Your task to perform on an android device: Play the last video I watched on Youtube Image 0: 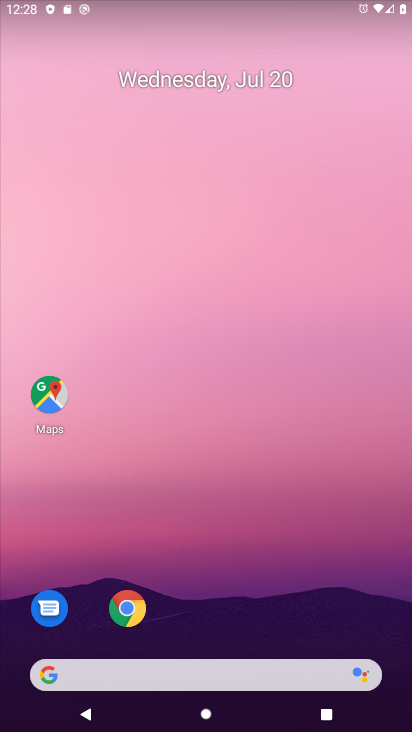
Step 0: drag from (194, 675) to (224, 48)
Your task to perform on an android device: Play the last video I watched on Youtube Image 1: 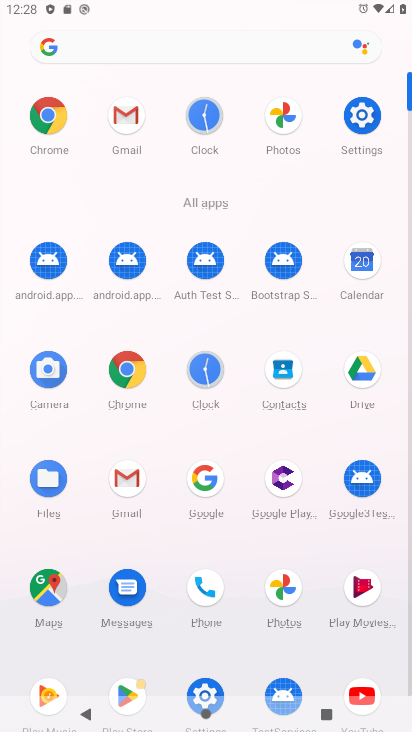
Step 1: drag from (239, 565) to (236, 337)
Your task to perform on an android device: Play the last video I watched on Youtube Image 2: 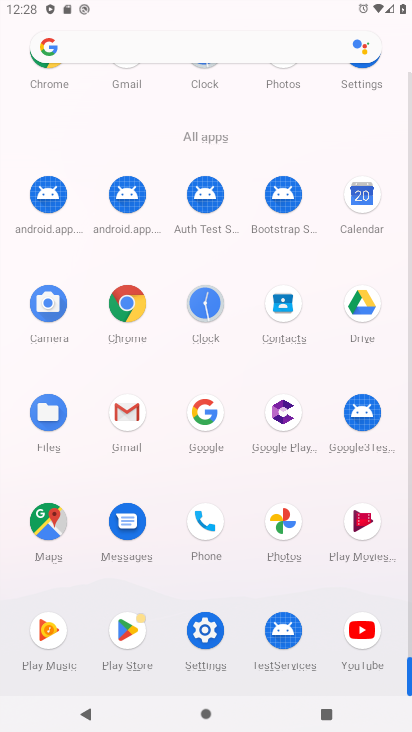
Step 2: click (362, 628)
Your task to perform on an android device: Play the last video I watched on Youtube Image 3: 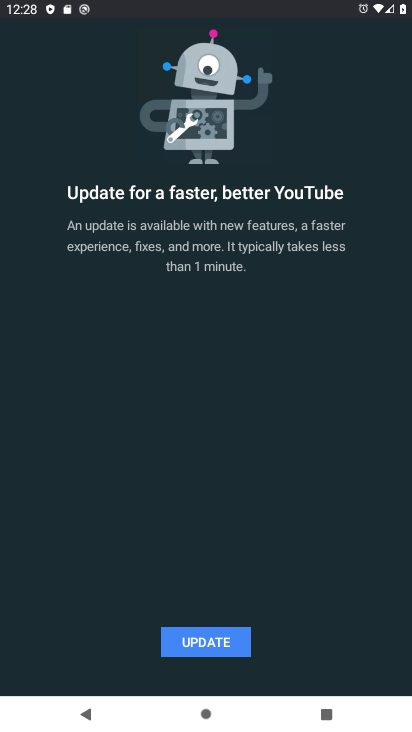
Step 3: click (216, 644)
Your task to perform on an android device: Play the last video I watched on Youtube Image 4: 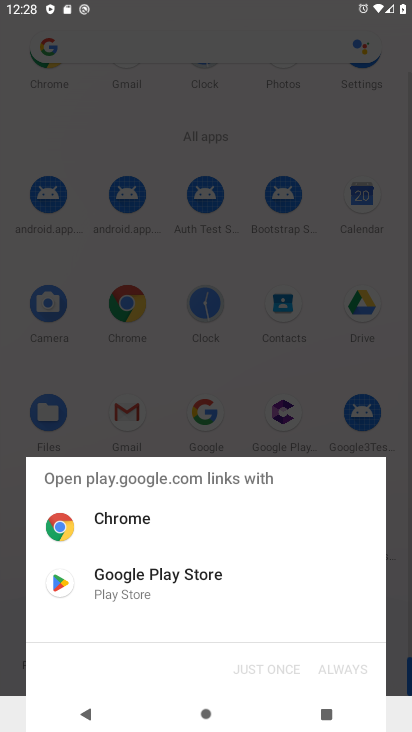
Step 4: click (175, 591)
Your task to perform on an android device: Play the last video I watched on Youtube Image 5: 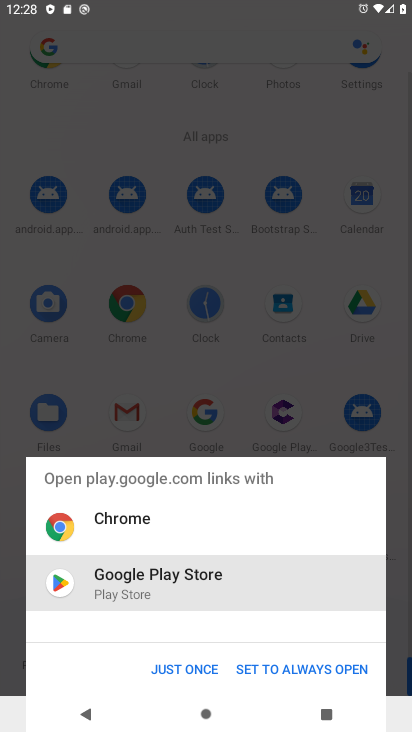
Step 5: click (186, 670)
Your task to perform on an android device: Play the last video I watched on Youtube Image 6: 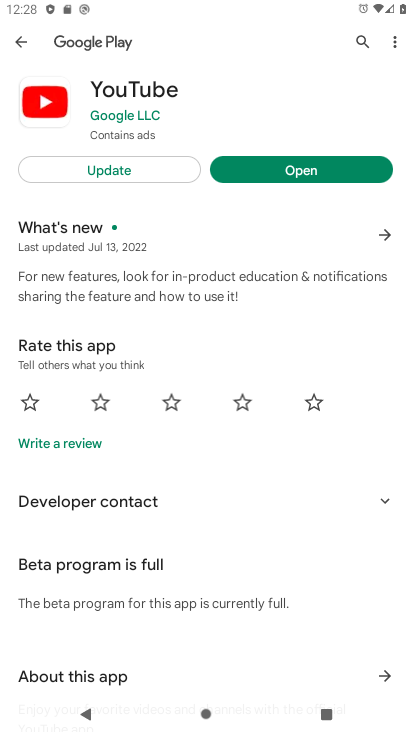
Step 6: click (106, 169)
Your task to perform on an android device: Play the last video I watched on Youtube Image 7: 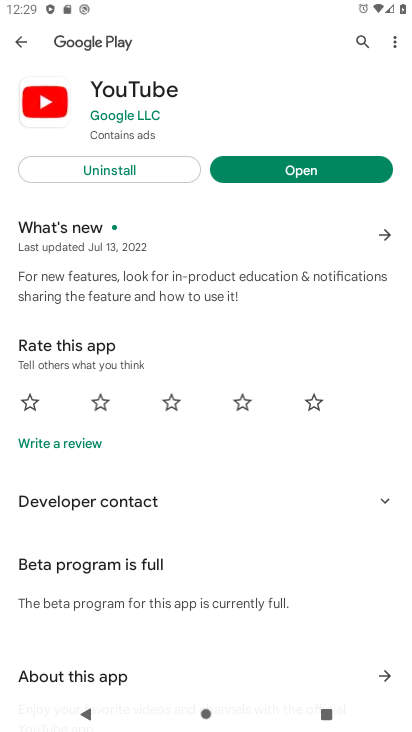
Step 7: click (306, 166)
Your task to perform on an android device: Play the last video I watched on Youtube Image 8: 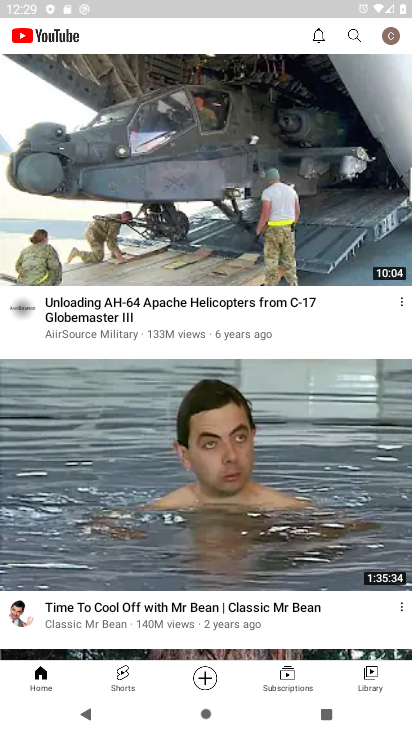
Step 8: click (370, 675)
Your task to perform on an android device: Play the last video I watched on Youtube Image 9: 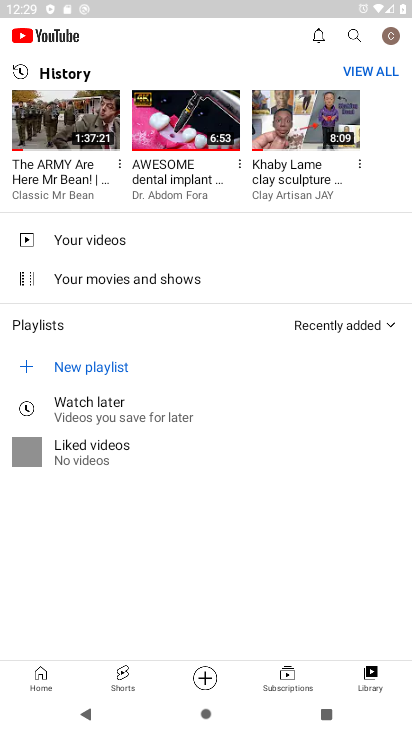
Step 9: click (61, 145)
Your task to perform on an android device: Play the last video I watched on Youtube Image 10: 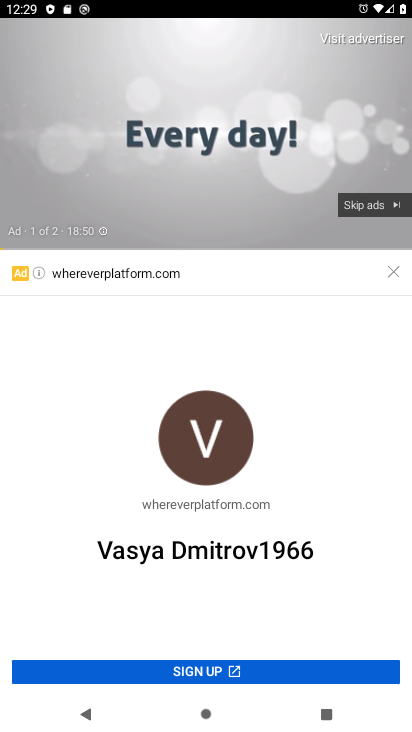
Step 10: click (367, 208)
Your task to perform on an android device: Play the last video I watched on Youtube Image 11: 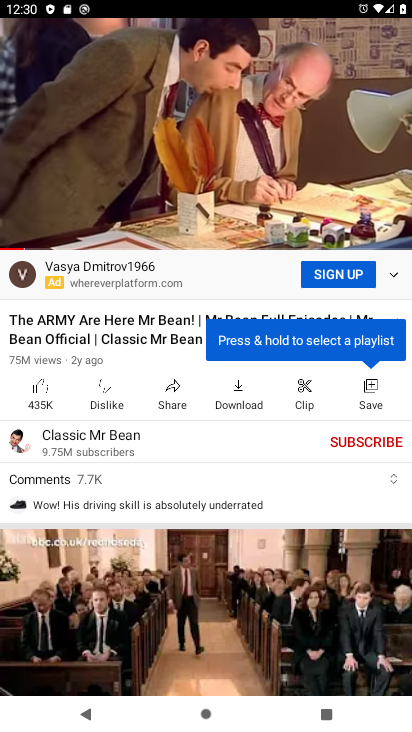
Step 11: click (257, 180)
Your task to perform on an android device: Play the last video I watched on Youtube Image 12: 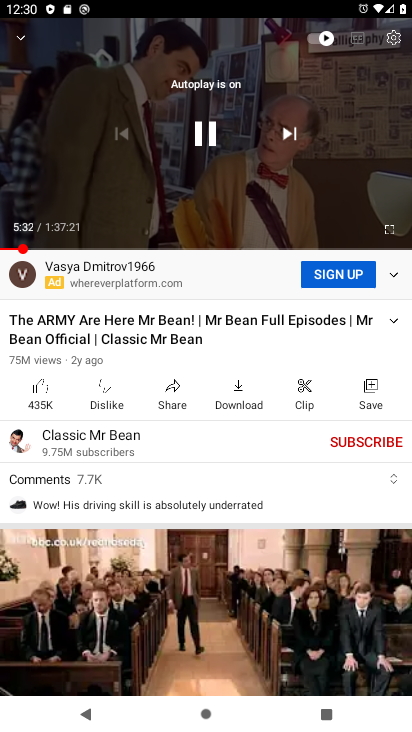
Step 12: click (206, 128)
Your task to perform on an android device: Play the last video I watched on Youtube Image 13: 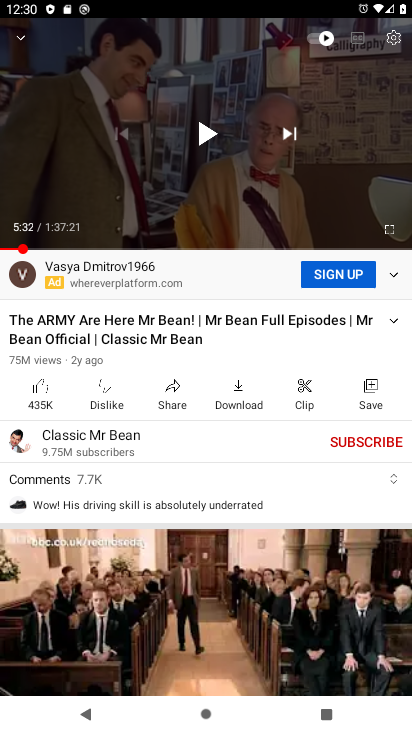
Step 13: task complete